Your task to perform on an android device: Show me productivity apps on the Play Store Image 0: 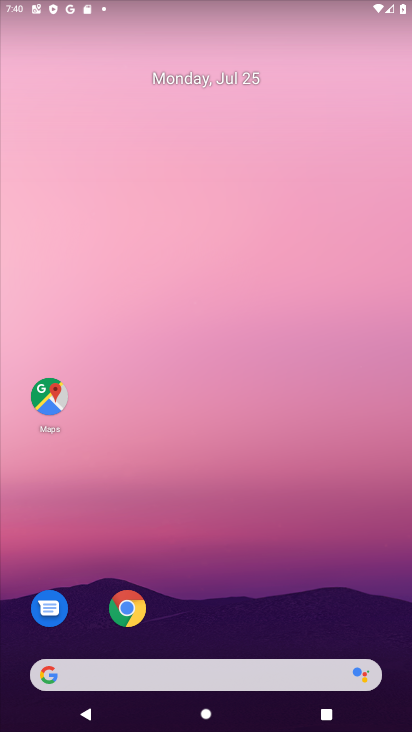
Step 0: drag from (206, 637) to (266, 67)
Your task to perform on an android device: Show me productivity apps on the Play Store Image 1: 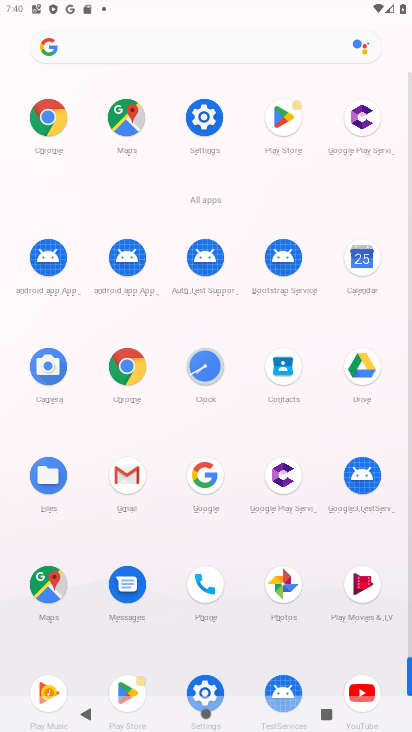
Step 1: drag from (158, 493) to (193, 191)
Your task to perform on an android device: Show me productivity apps on the Play Store Image 2: 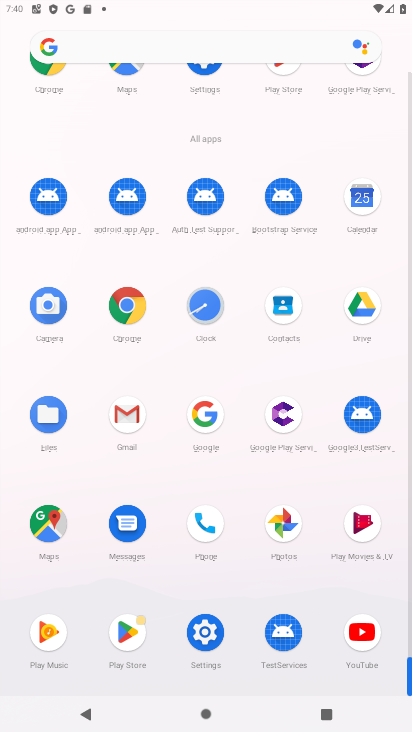
Step 2: click (129, 638)
Your task to perform on an android device: Show me productivity apps on the Play Store Image 3: 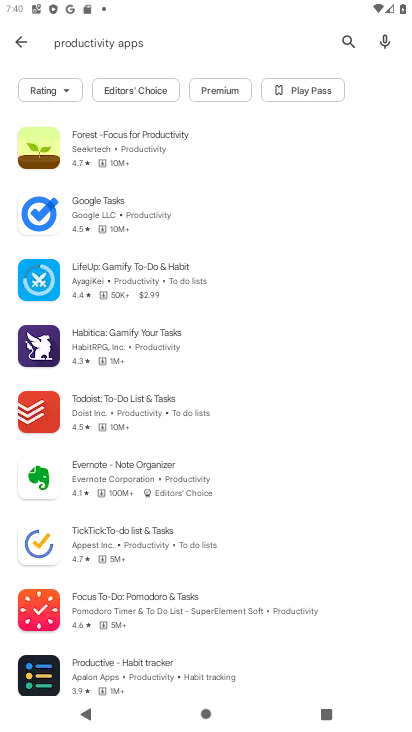
Step 3: task complete